Your task to perform on an android device: turn on wifi Image 0: 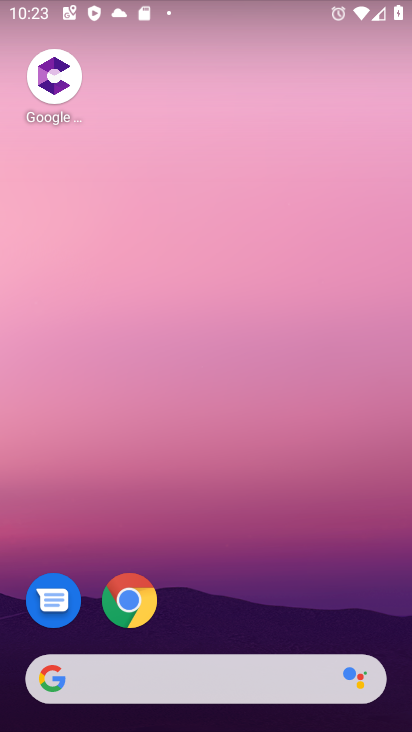
Step 0: drag from (312, 55) to (263, 431)
Your task to perform on an android device: turn on wifi Image 1: 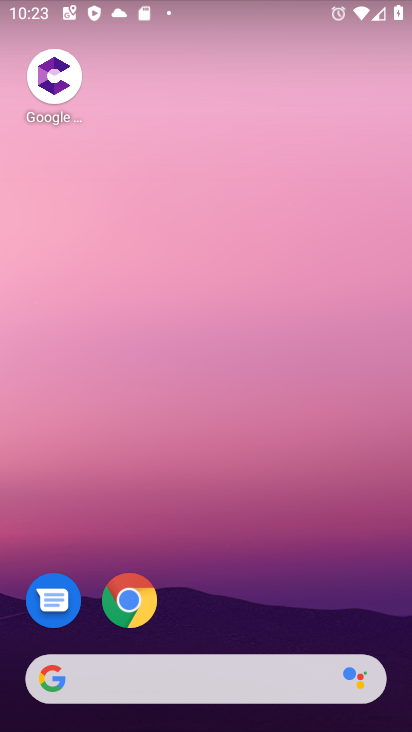
Step 1: task complete